Your task to perform on an android device: open app "Microsoft Excel" Image 0: 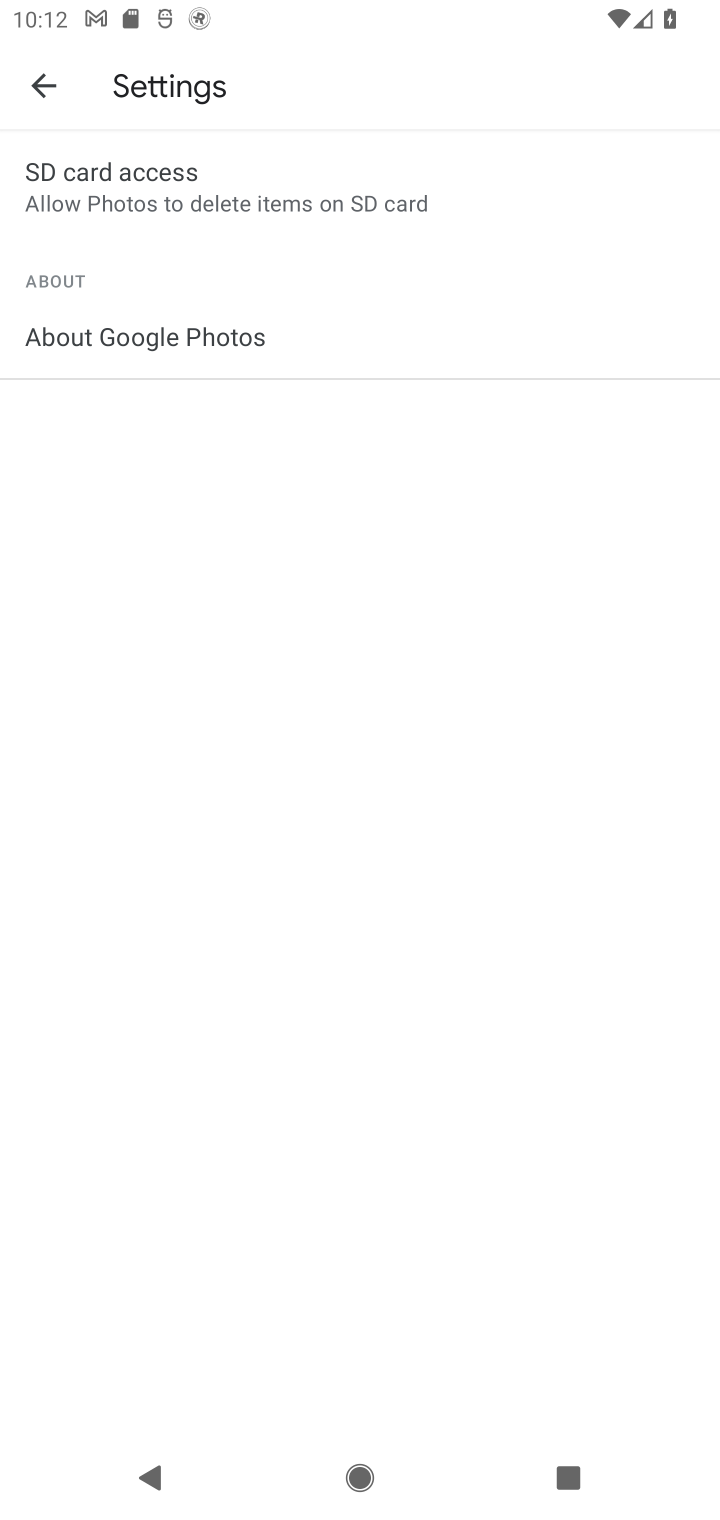
Step 0: press home button
Your task to perform on an android device: open app "Microsoft Excel" Image 1: 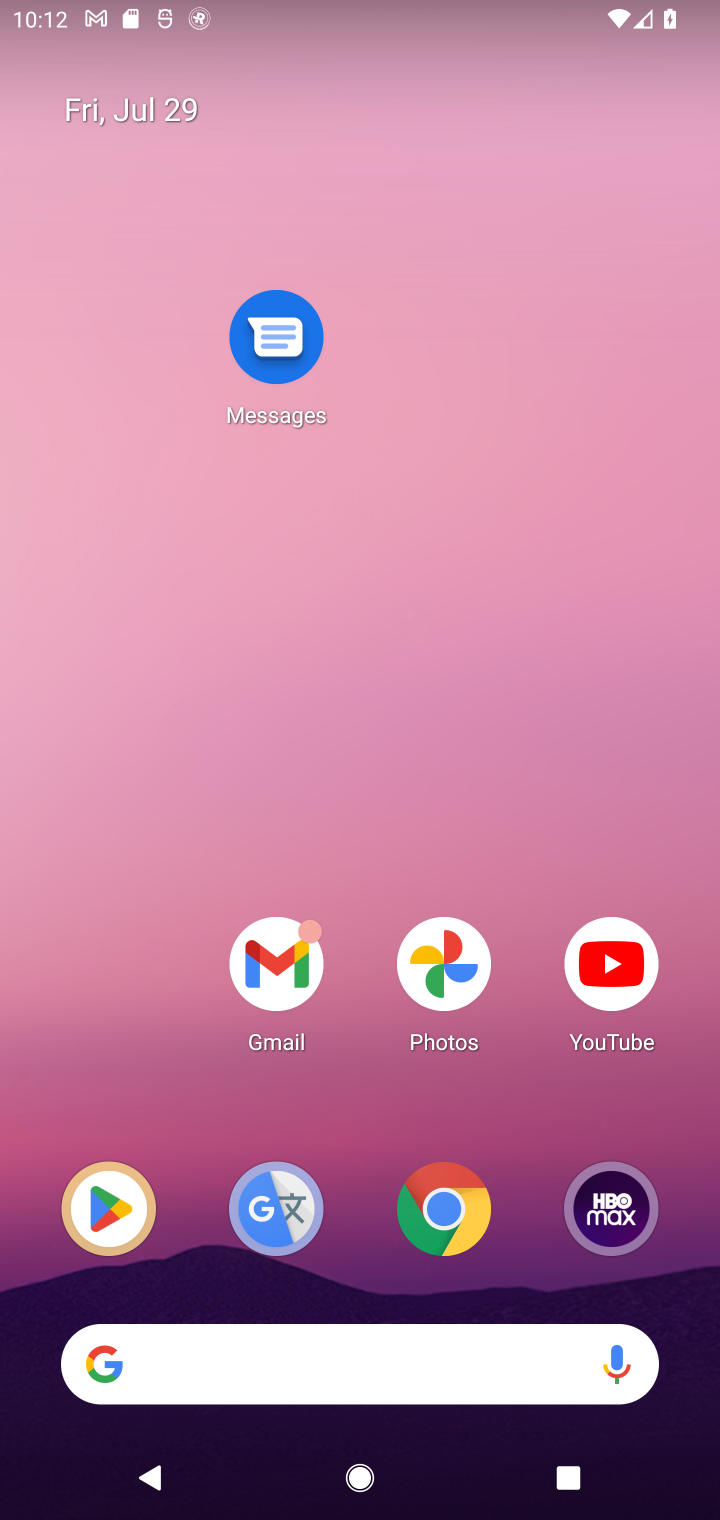
Step 1: drag from (318, 1344) to (525, 282)
Your task to perform on an android device: open app "Microsoft Excel" Image 2: 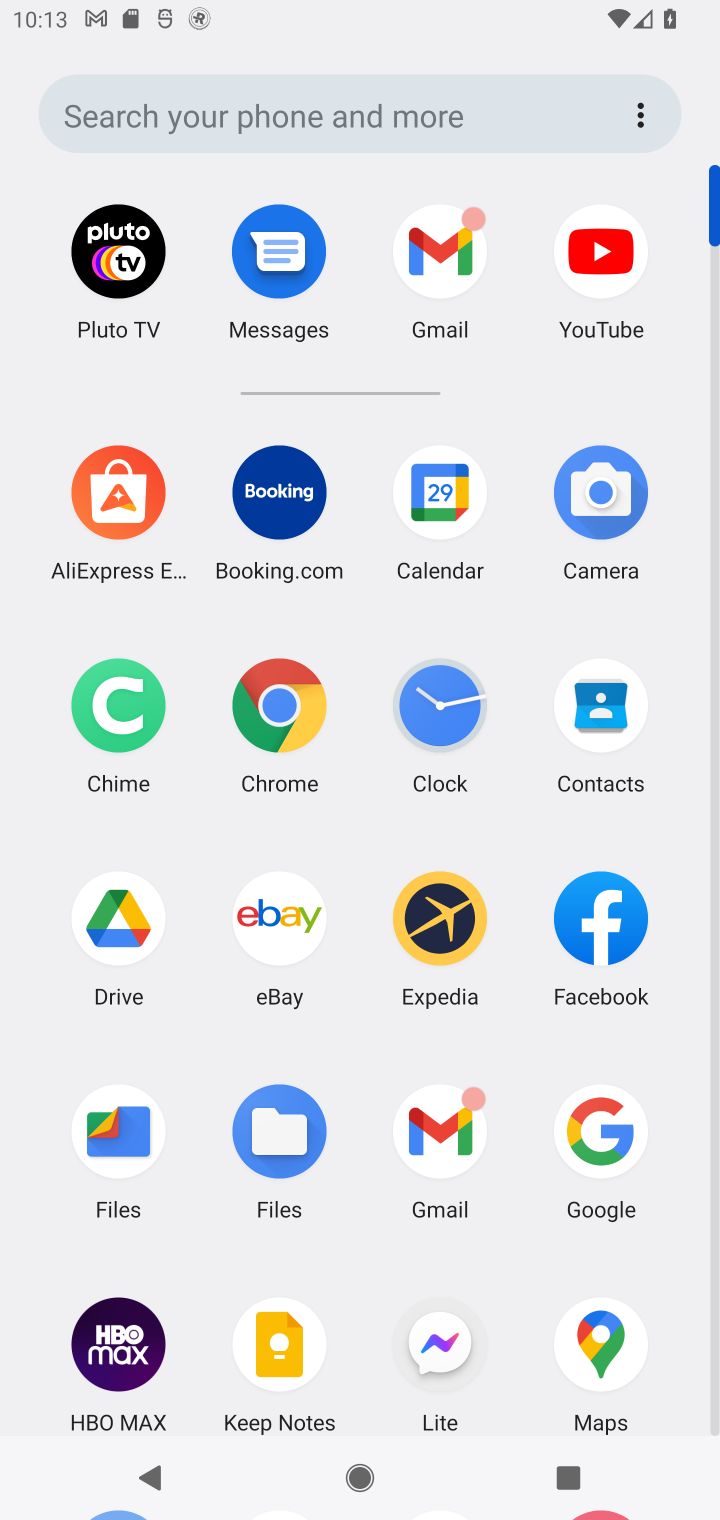
Step 2: drag from (330, 1275) to (382, 451)
Your task to perform on an android device: open app "Microsoft Excel" Image 3: 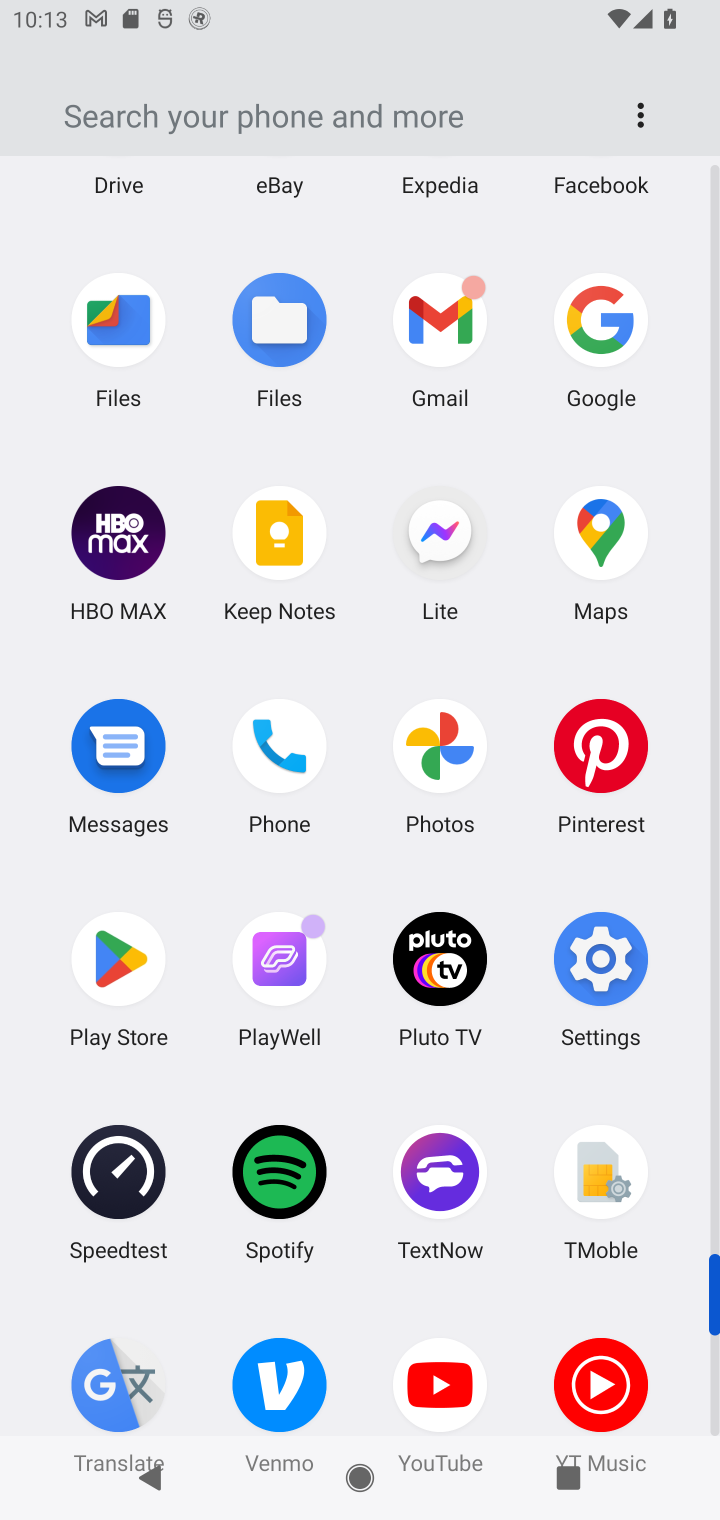
Step 3: click (336, 1098)
Your task to perform on an android device: open app "Microsoft Excel" Image 4: 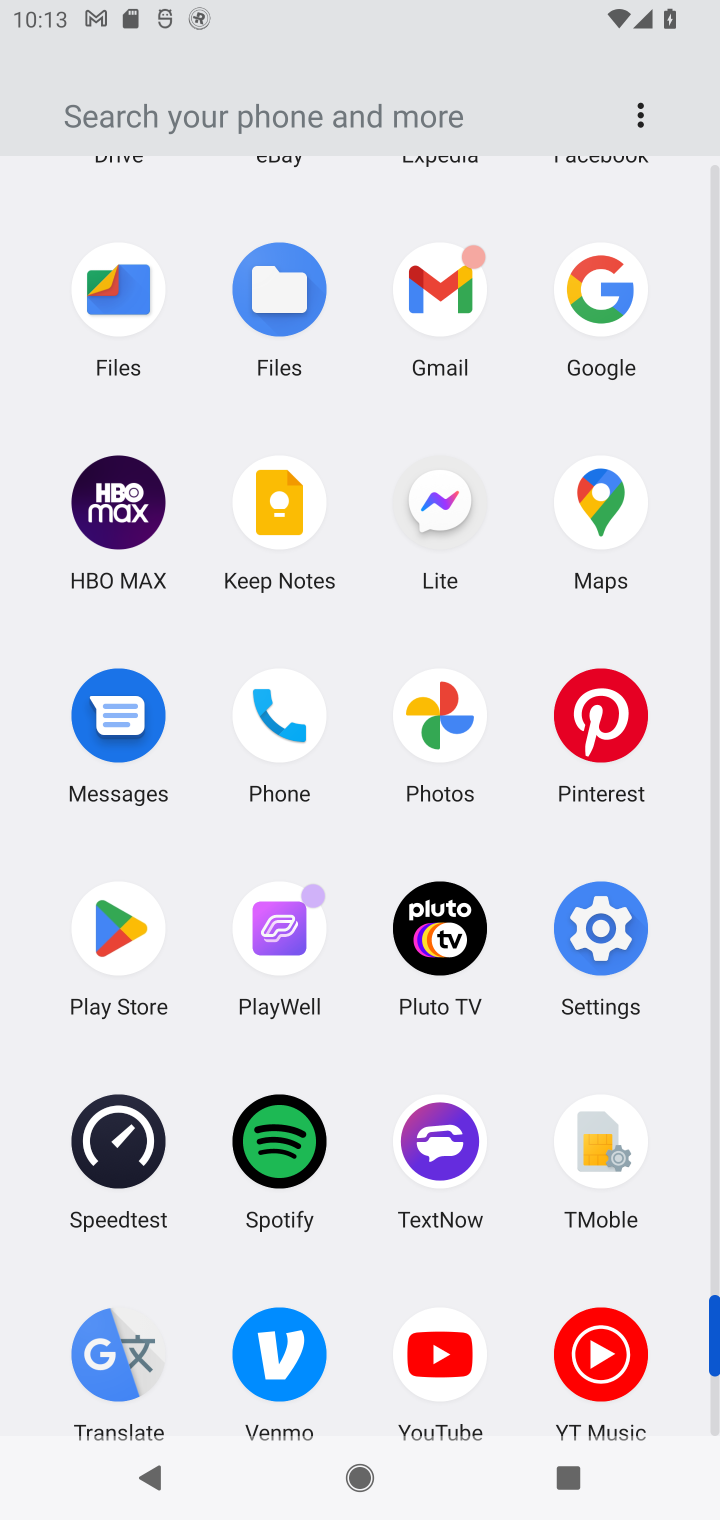
Step 4: click (108, 925)
Your task to perform on an android device: open app "Microsoft Excel" Image 5: 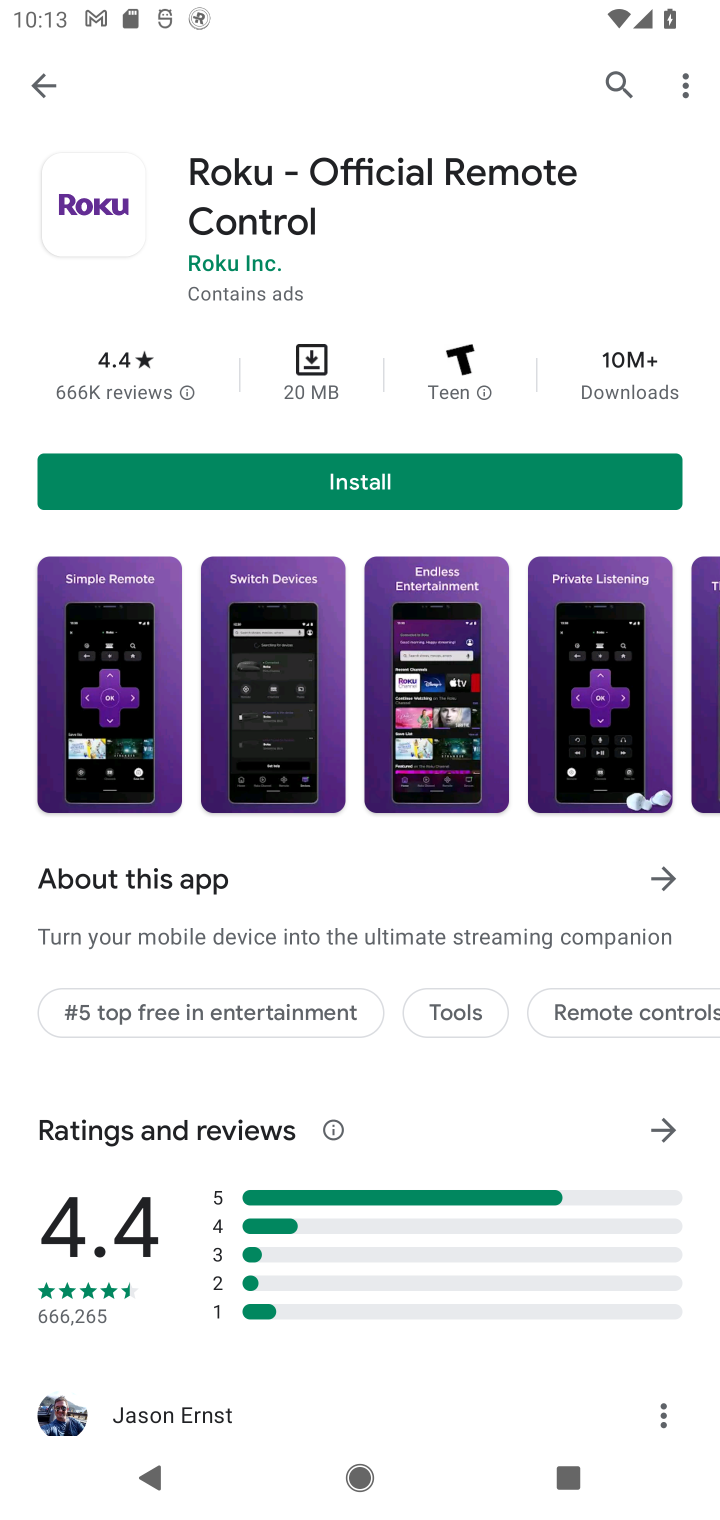
Step 5: click (613, 84)
Your task to perform on an android device: open app "Microsoft Excel" Image 6: 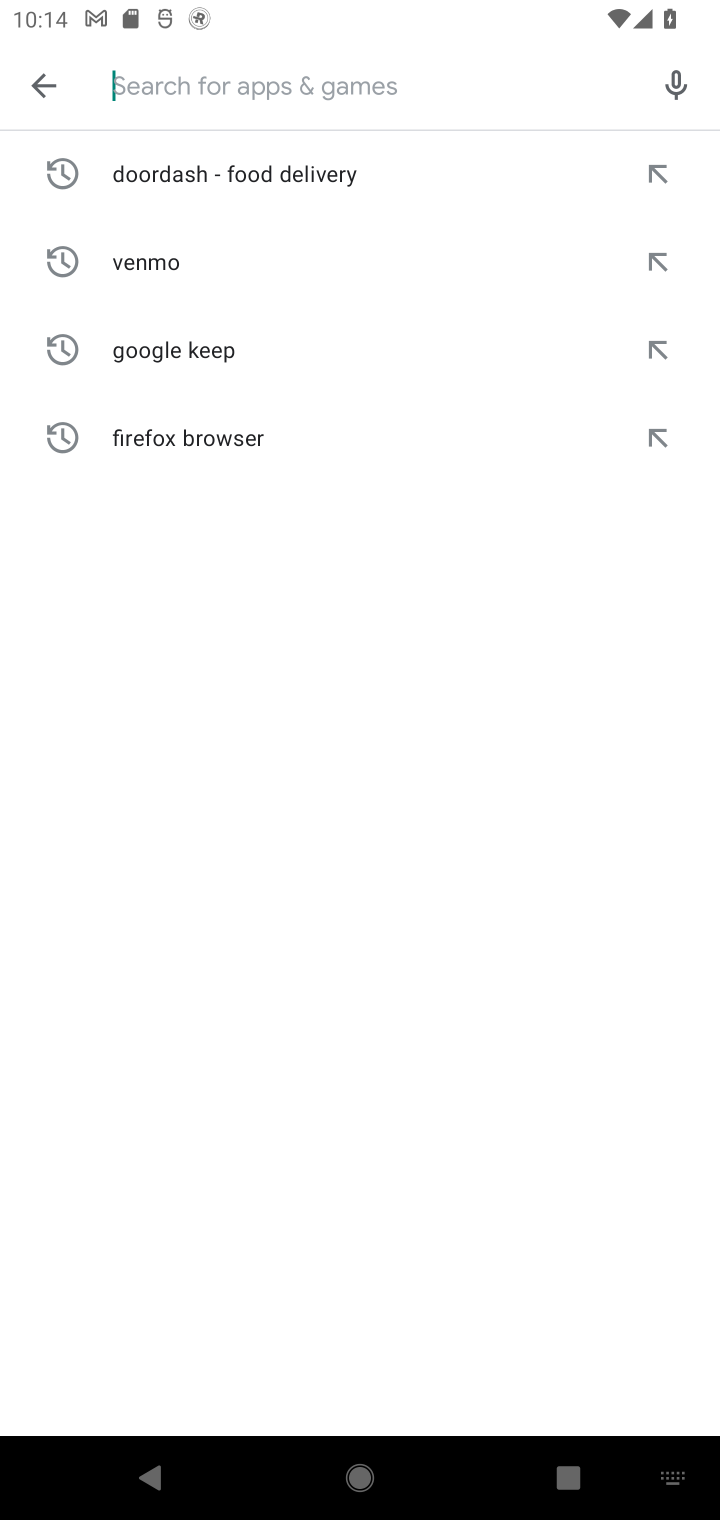
Step 6: type "Microsoft Excel"
Your task to perform on an android device: open app "Microsoft Excel" Image 7: 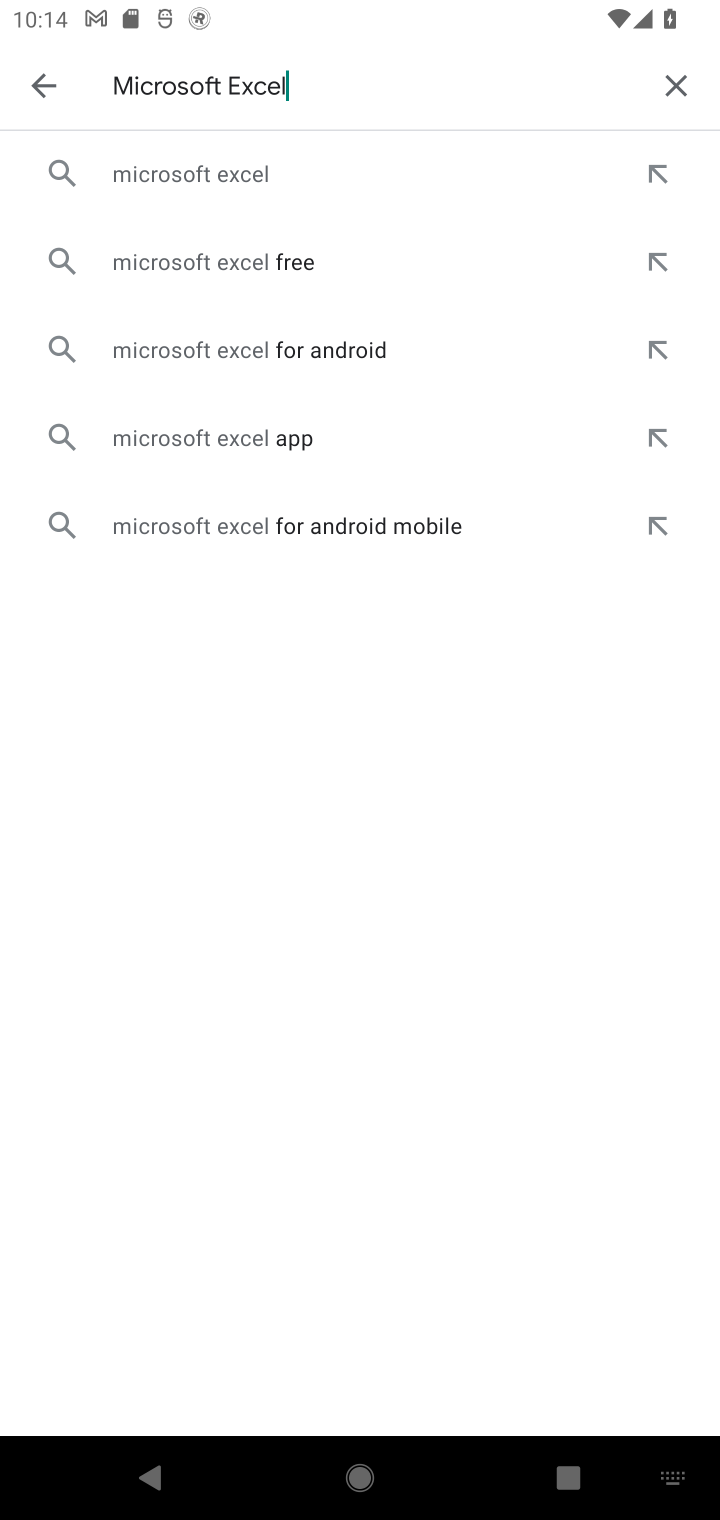
Step 7: click (233, 174)
Your task to perform on an android device: open app "Microsoft Excel" Image 8: 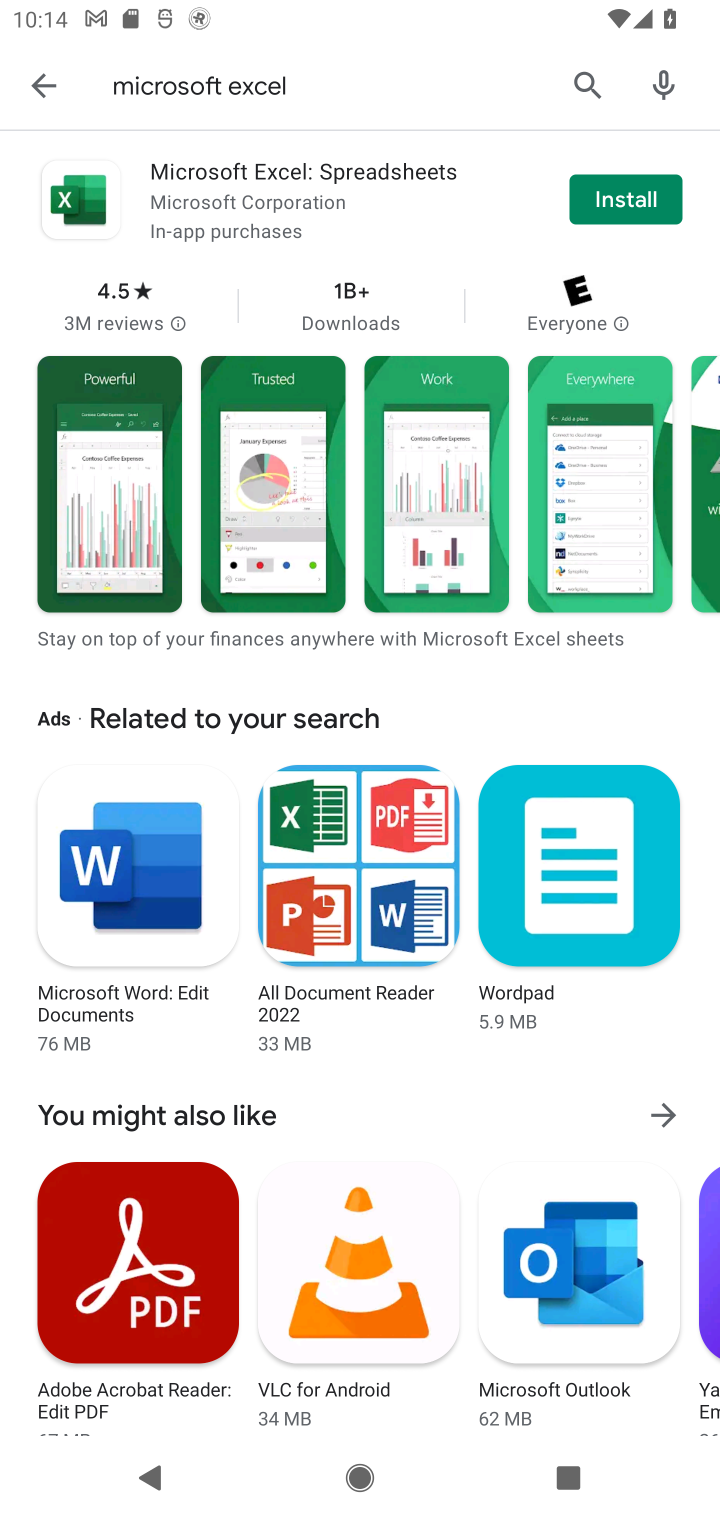
Step 8: task complete